Your task to perform on an android device: Go to privacy settings Image 0: 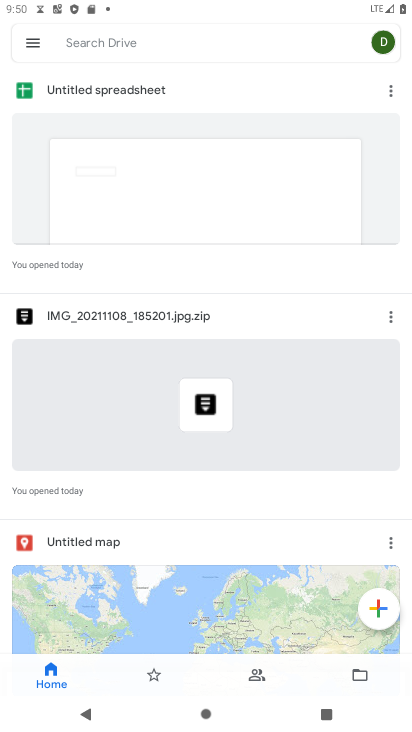
Step 0: press home button
Your task to perform on an android device: Go to privacy settings Image 1: 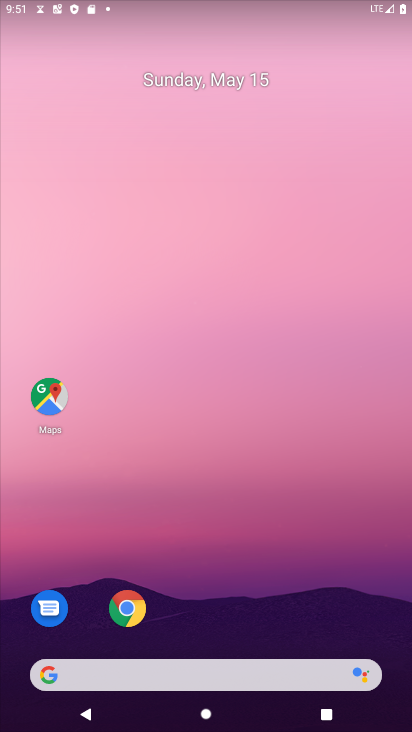
Step 1: drag from (268, 593) to (218, 53)
Your task to perform on an android device: Go to privacy settings Image 2: 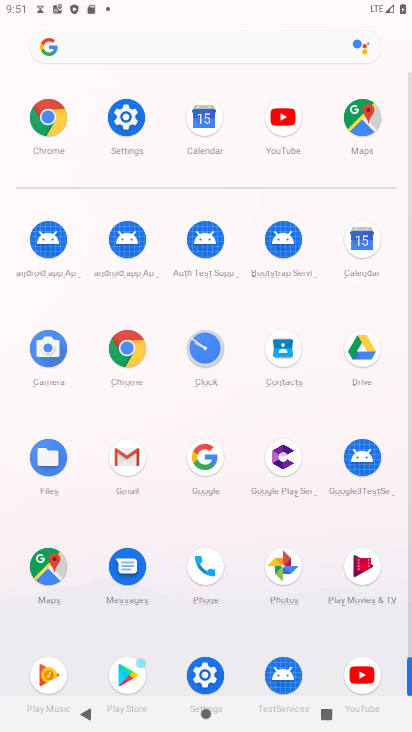
Step 2: click (123, 130)
Your task to perform on an android device: Go to privacy settings Image 3: 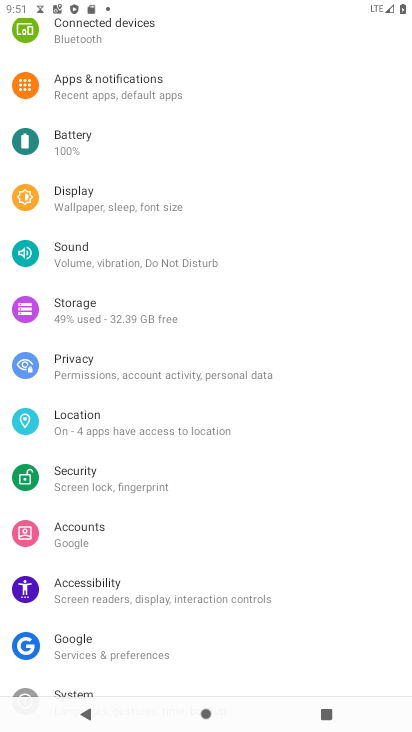
Step 3: drag from (175, 618) to (253, 216)
Your task to perform on an android device: Go to privacy settings Image 4: 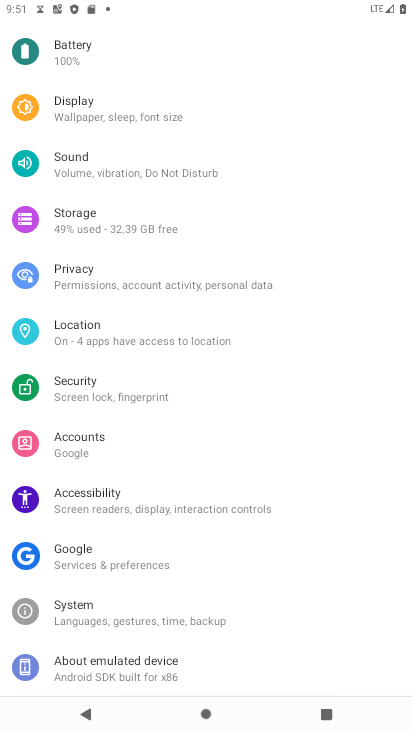
Step 4: drag from (229, 172) to (198, 582)
Your task to perform on an android device: Go to privacy settings Image 5: 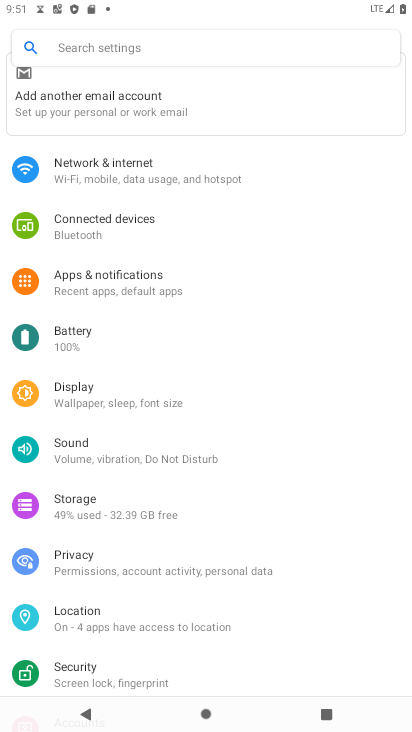
Step 5: click (114, 556)
Your task to perform on an android device: Go to privacy settings Image 6: 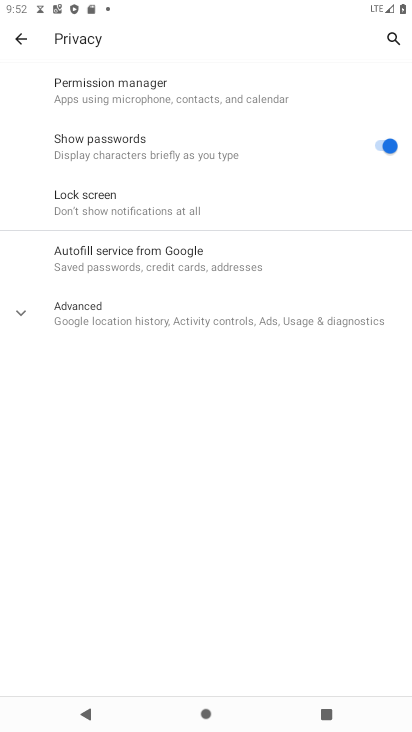
Step 6: task complete